Your task to perform on an android device: Show me the alarms in the clock app Image 0: 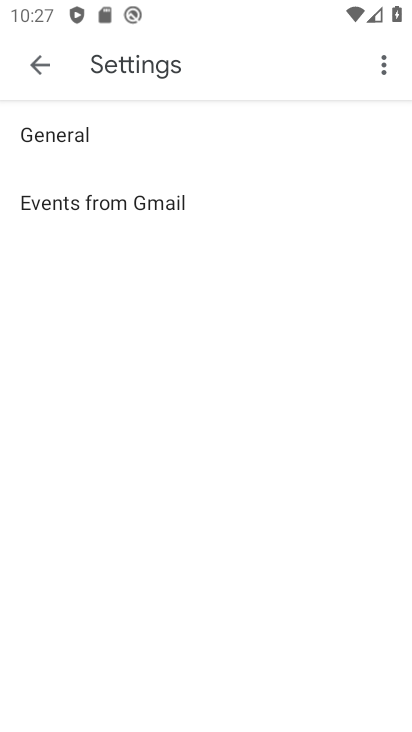
Step 0: press back button
Your task to perform on an android device: Show me the alarms in the clock app Image 1: 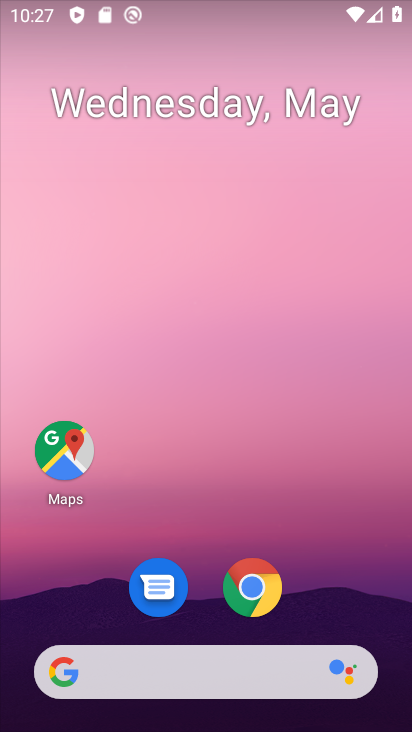
Step 1: drag from (192, 550) to (213, 75)
Your task to perform on an android device: Show me the alarms in the clock app Image 2: 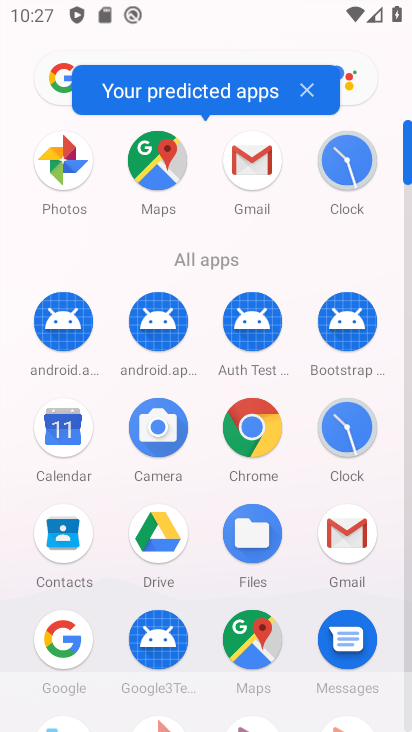
Step 2: click (342, 432)
Your task to perform on an android device: Show me the alarms in the clock app Image 3: 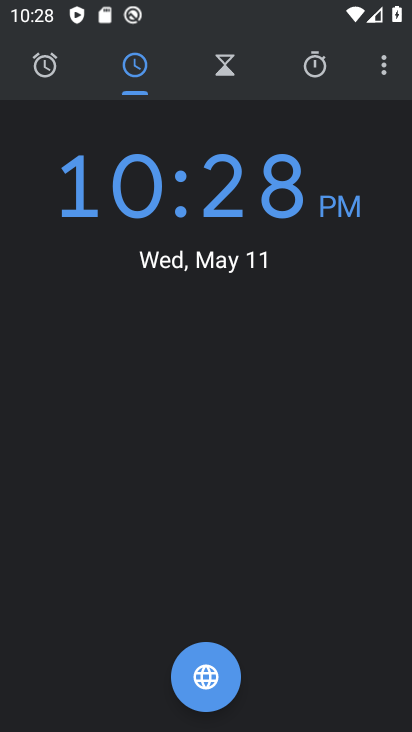
Step 3: click (54, 63)
Your task to perform on an android device: Show me the alarms in the clock app Image 4: 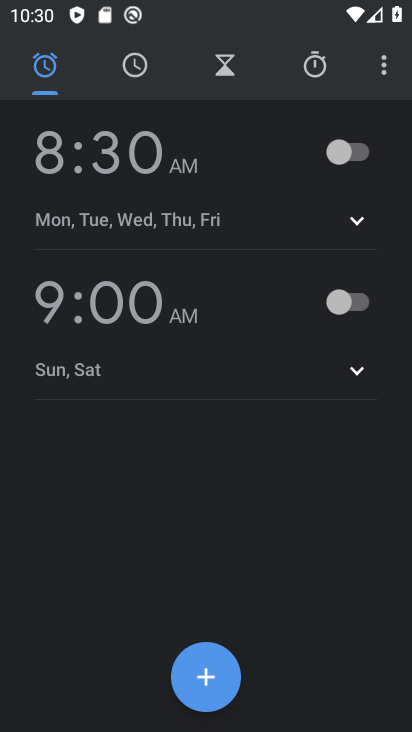
Step 4: task complete